Your task to perform on an android device: Do I have any events today? Image 0: 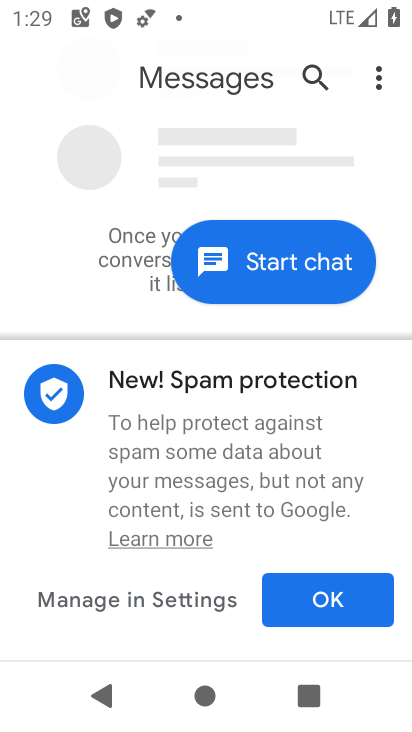
Step 0: press home button
Your task to perform on an android device: Do I have any events today? Image 1: 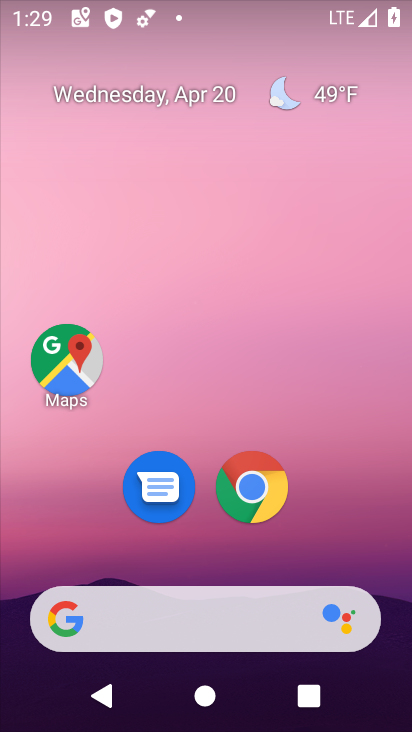
Step 1: drag from (346, 480) to (305, 127)
Your task to perform on an android device: Do I have any events today? Image 2: 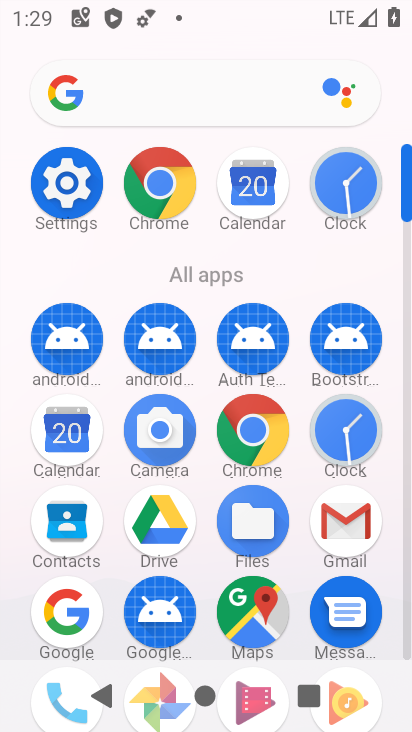
Step 2: click (259, 188)
Your task to perform on an android device: Do I have any events today? Image 3: 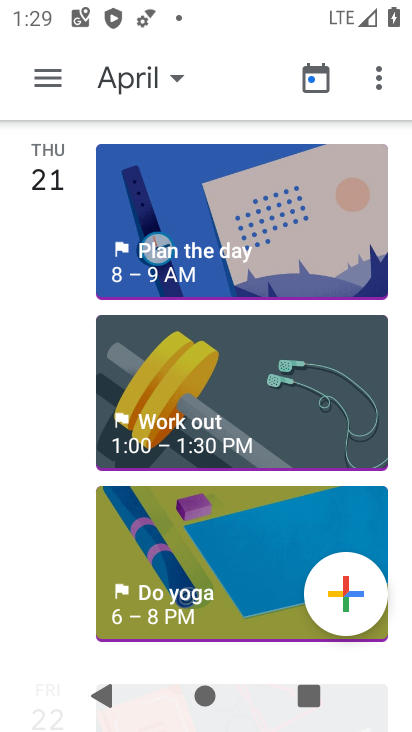
Step 3: click (167, 74)
Your task to perform on an android device: Do I have any events today? Image 4: 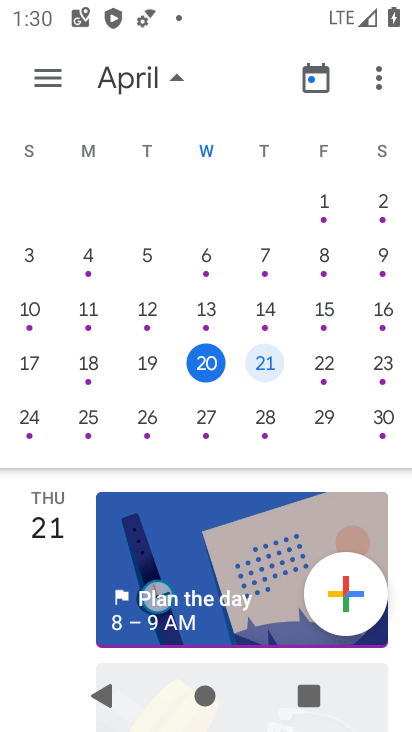
Step 4: click (213, 368)
Your task to perform on an android device: Do I have any events today? Image 5: 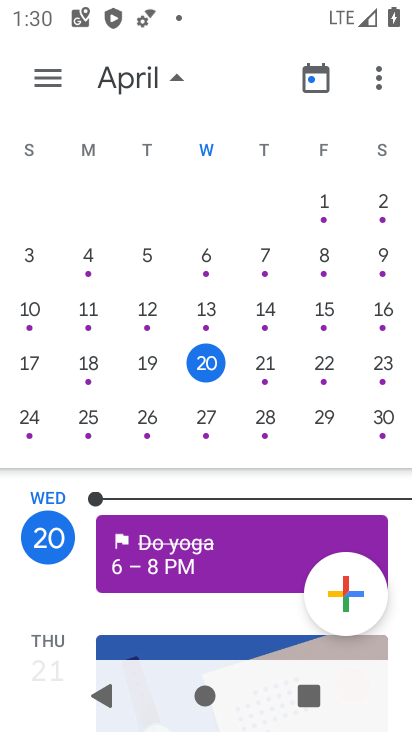
Step 5: click (175, 88)
Your task to perform on an android device: Do I have any events today? Image 6: 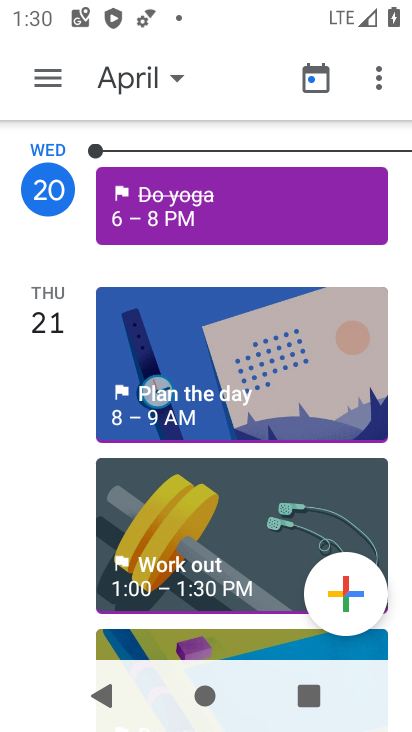
Step 6: task complete